Your task to perform on an android device: Go to battery settings Image 0: 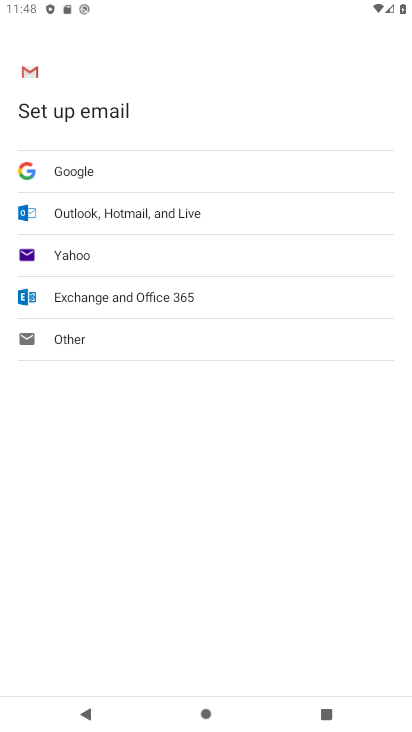
Step 0: press back button
Your task to perform on an android device: Go to battery settings Image 1: 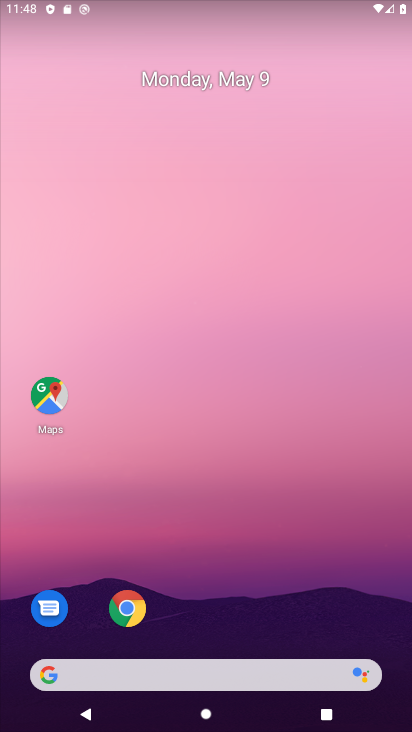
Step 1: drag from (255, 520) to (214, 41)
Your task to perform on an android device: Go to battery settings Image 2: 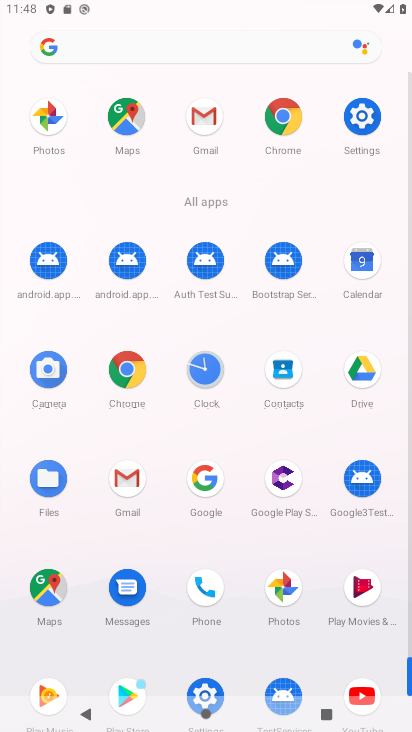
Step 2: drag from (6, 489) to (1, 251)
Your task to perform on an android device: Go to battery settings Image 3: 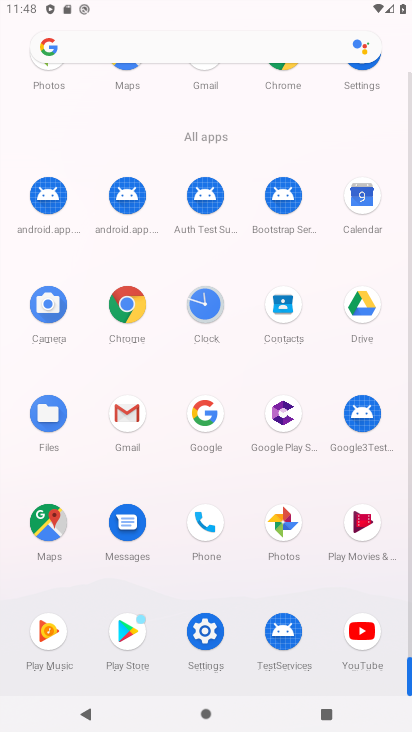
Step 3: click (202, 629)
Your task to perform on an android device: Go to battery settings Image 4: 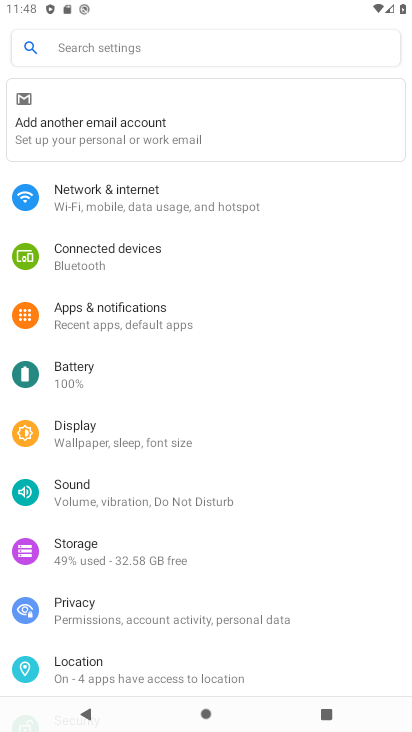
Step 4: click (116, 377)
Your task to perform on an android device: Go to battery settings Image 5: 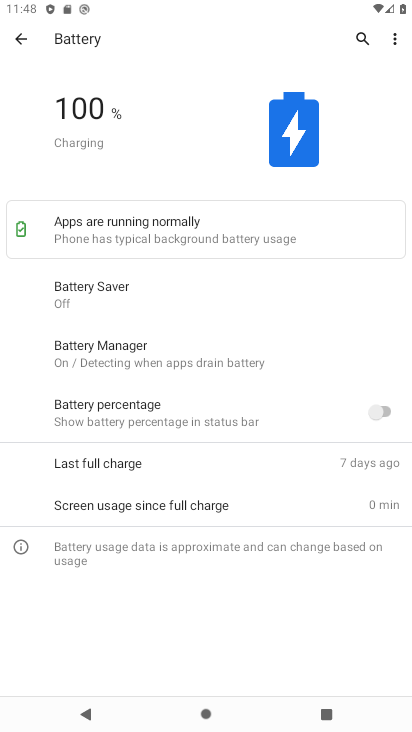
Step 5: task complete